Your task to perform on an android device: Open the stopwatch Image 0: 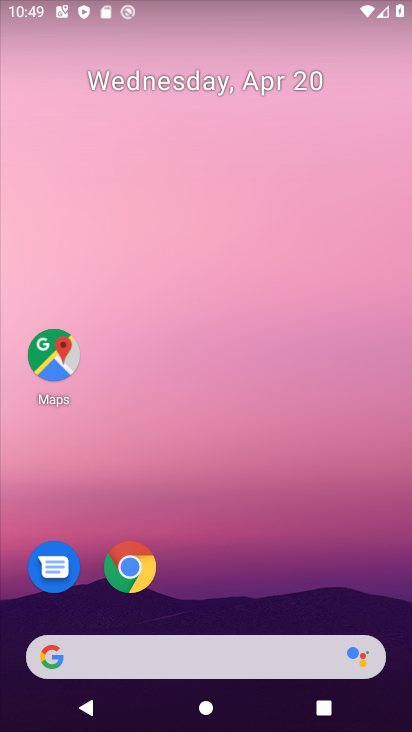
Step 0: drag from (337, 550) to (310, 6)
Your task to perform on an android device: Open the stopwatch Image 1: 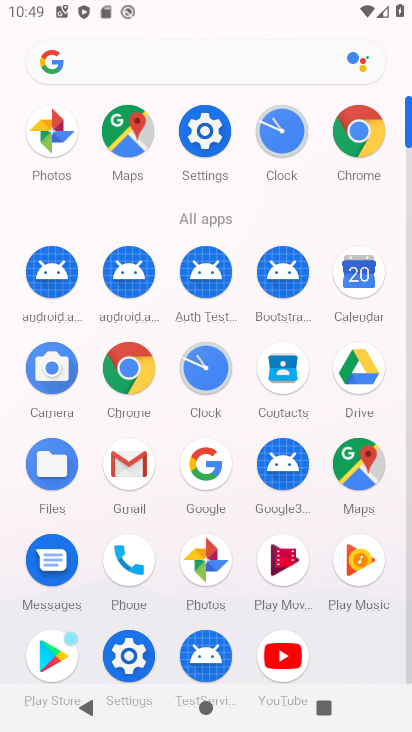
Step 1: click (209, 374)
Your task to perform on an android device: Open the stopwatch Image 2: 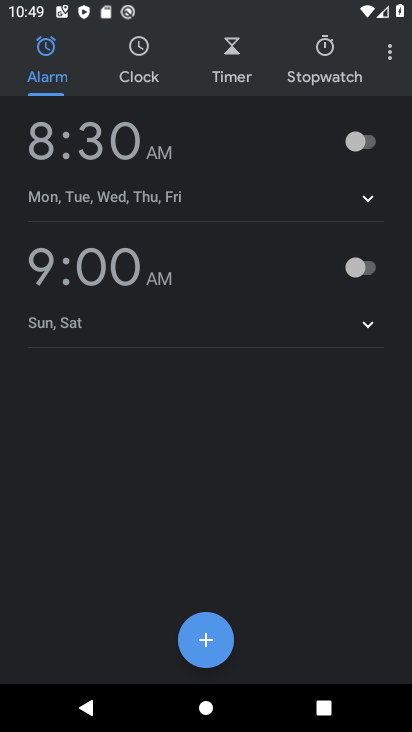
Step 2: click (320, 54)
Your task to perform on an android device: Open the stopwatch Image 3: 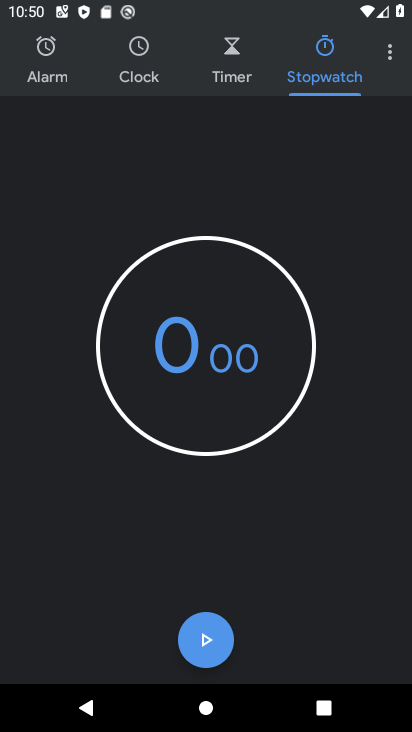
Step 3: task complete